Your task to perform on an android device: Is it going to rain this weekend? Image 0: 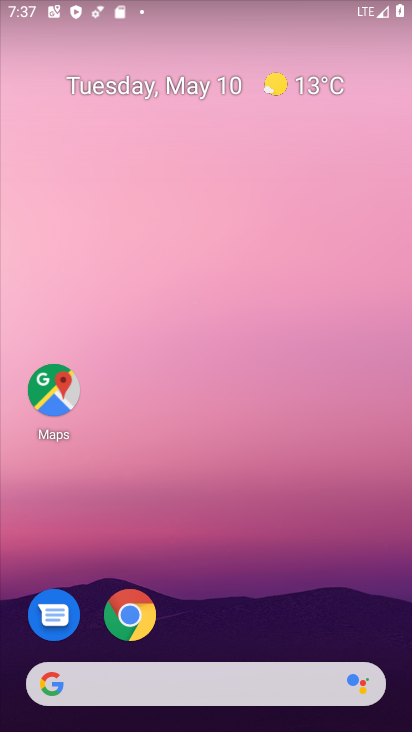
Step 0: drag from (306, 537) to (286, 242)
Your task to perform on an android device: Is it going to rain this weekend? Image 1: 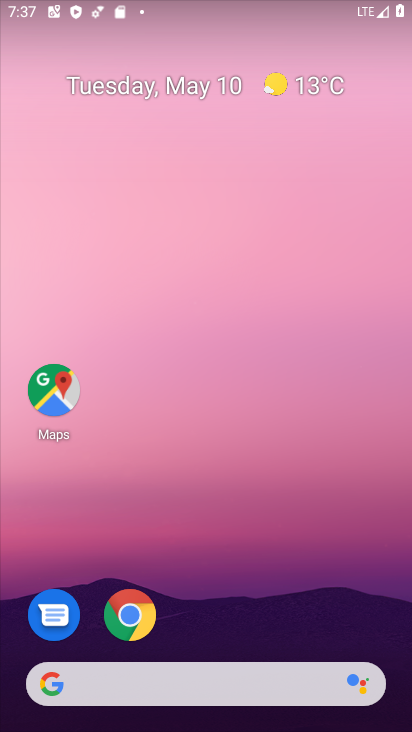
Step 1: drag from (262, 606) to (228, 402)
Your task to perform on an android device: Is it going to rain this weekend? Image 2: 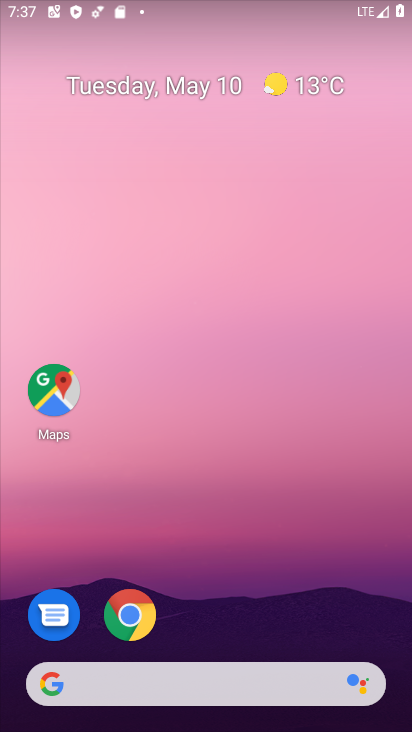
Step 2: click (315, 91)
Your task to perform on an android device: Is it going to rain this weekend? Image 3: 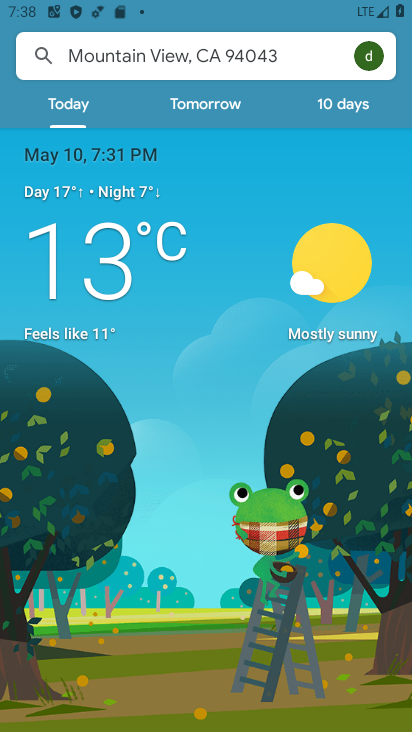
Step 3: click (354, 104)
Your task to perform on an android device: Is it going to rain this weekend? Image 4: 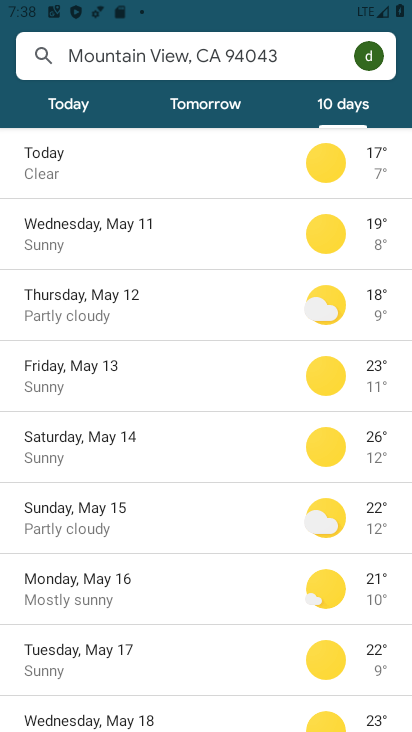
Step 4: task complete